Your task to perform on an android device: turn on priority inbox in the gmail app Image 0: 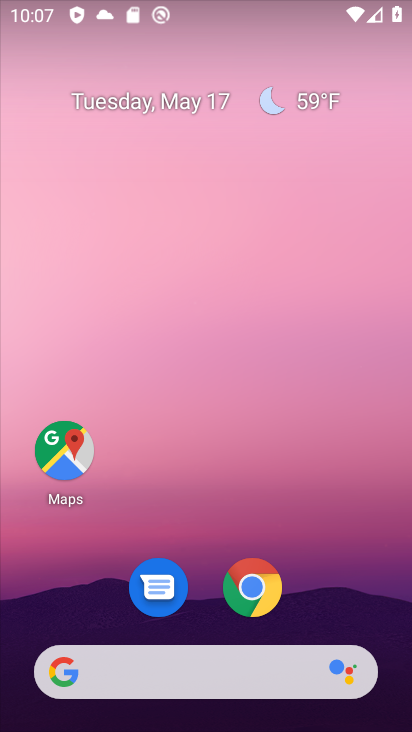
Step 0: drag from (311, 597) to (289, 90)
Your task to perform on an android device: turn on priority inbox in the gmail app Image 1: 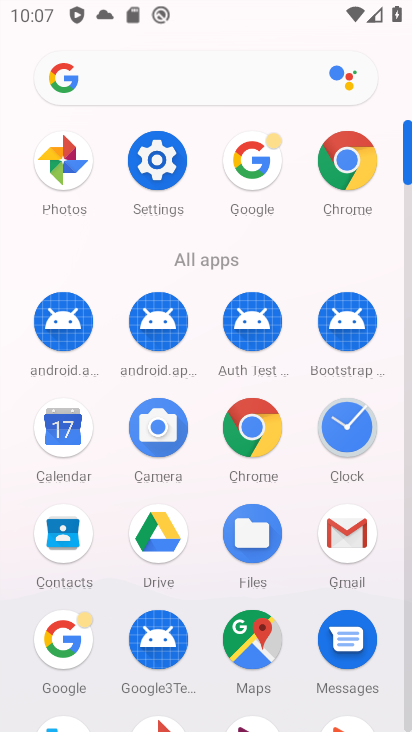
Step 1: click (353, 533)
Your task to perform on an android device: turn on priority inbox in the gmail app Image 2: 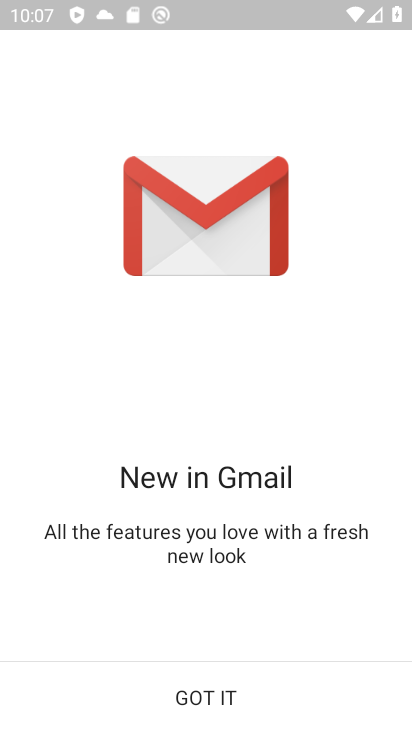
Step 2: click (353, 533)
Your task to perform on an android device: turn on priority inbox in the gmail app Image 3: 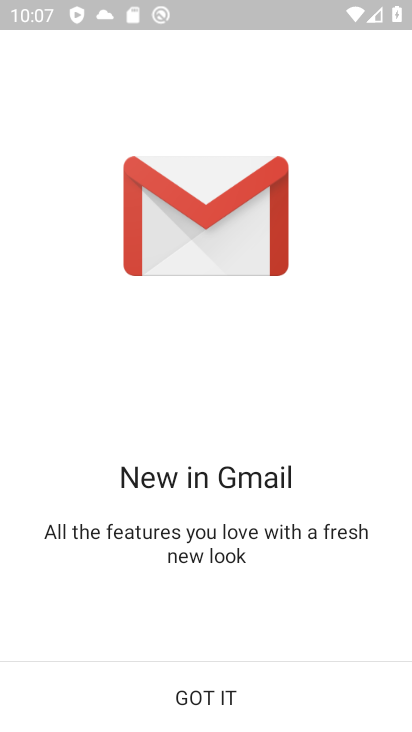
Step 3: click (240, 698)
Your task to perform on an android device: turn on priority inbox in the gmail app Image 4: 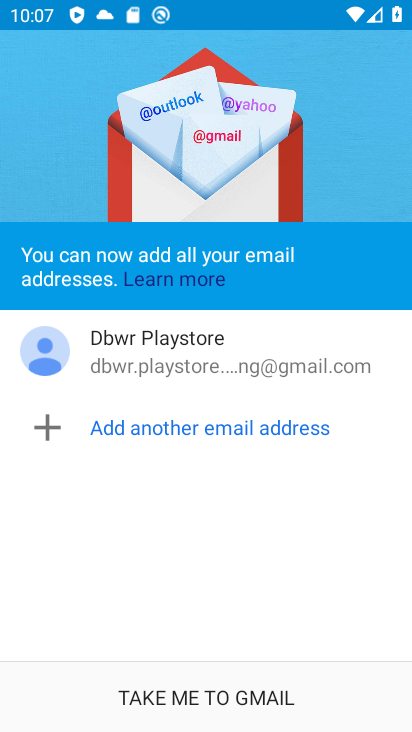
Step 4: click (240, 698)
Your task to perform on an android device: turn on priority inbox in the gmail app Image 5: 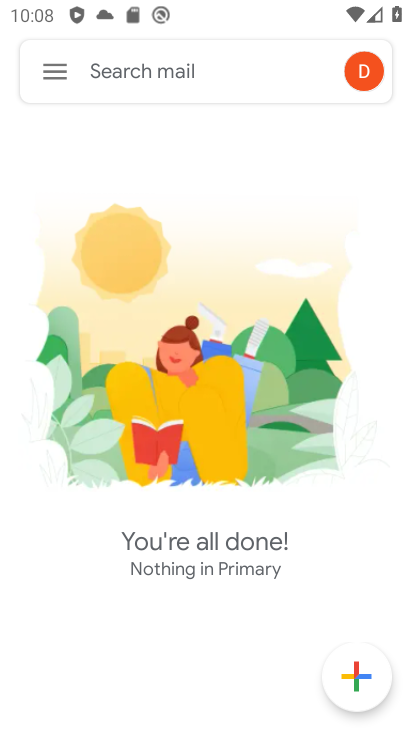
Step 5: click (43, 77)
Your task to perform on an android device: turn on priority inbox in the gmail app Image 6: 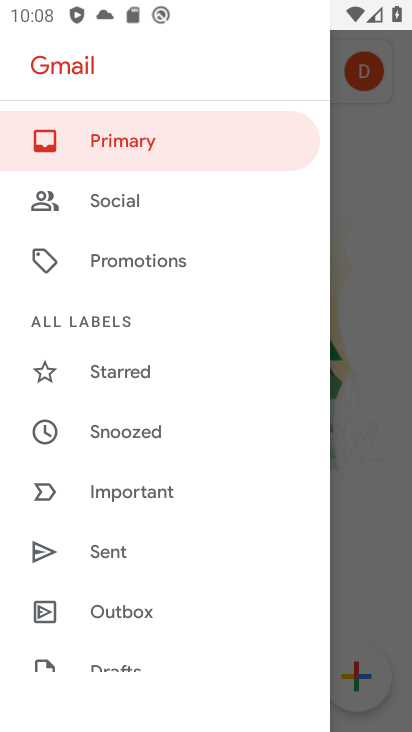
Step 6: drag from (183, 638) to (162, 437)
Your task to perform on an android device: turn on priority inbox in the gmail app Image 7: 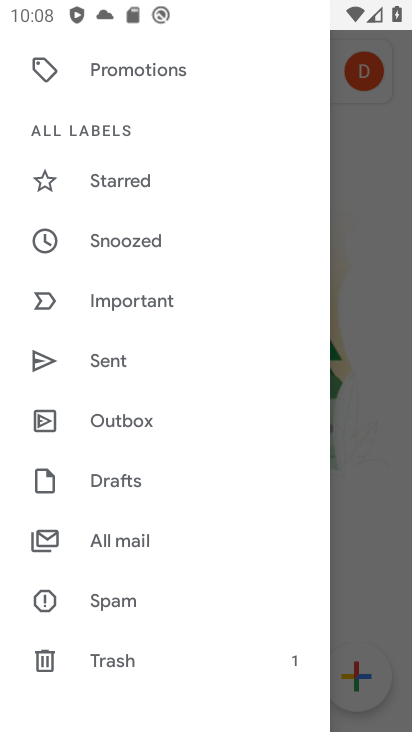
Step 7: drag from (194, 549) to (109, 323)
Your task to perform on an android device: turn on priority inbox in the gmail app Image 8: 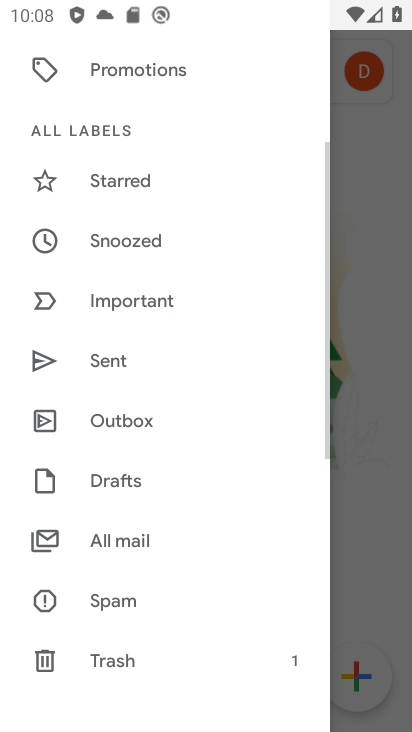
Step 8: drag from (121, 641) to (161, 297)
Your task to perform on an android device: turn on priority inbox in the gmail app Image 9: 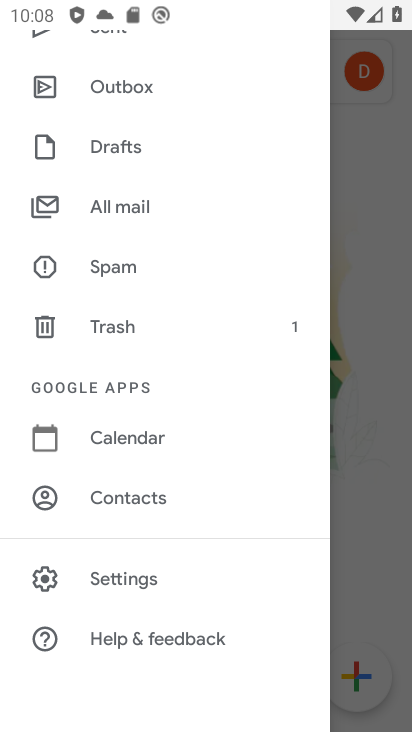
Step 9: click (123, 571)
Your task to perform on an android device: turn on priority inbox in the gmail app Image 10: 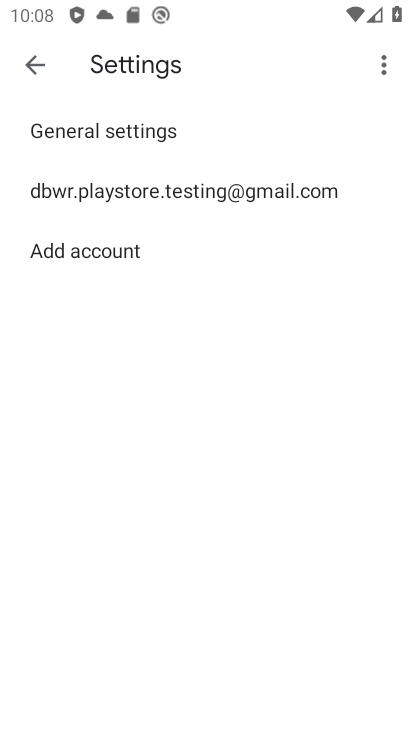
Step 10: click (212, 189)
Your task to perform on an android device: turn on priority inbox in the gmail app Image 11: 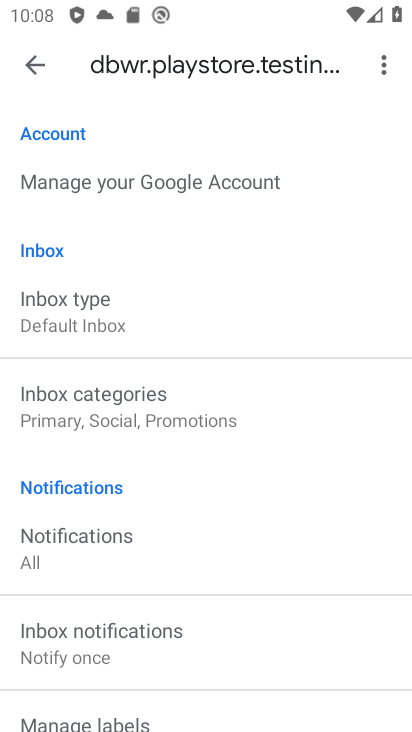
Step 11: click (64, 295)
Your task to perform on an android device: turn on priority inbox in the gmail app Image 12: 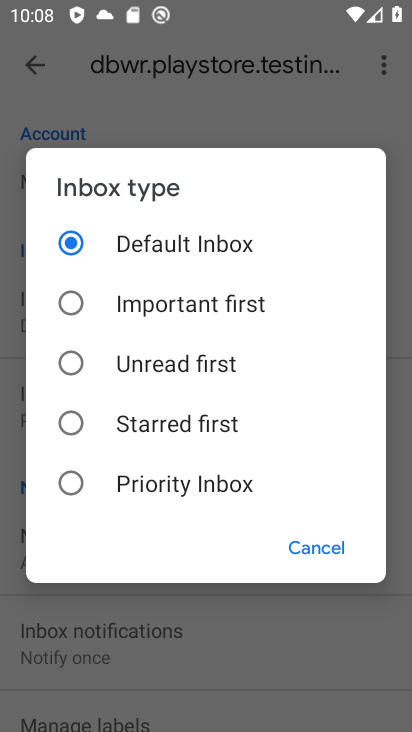
Step 12: click (66, 483)
Your task to perform on an android device: turn on priority inbox in the gmail app Image 13: 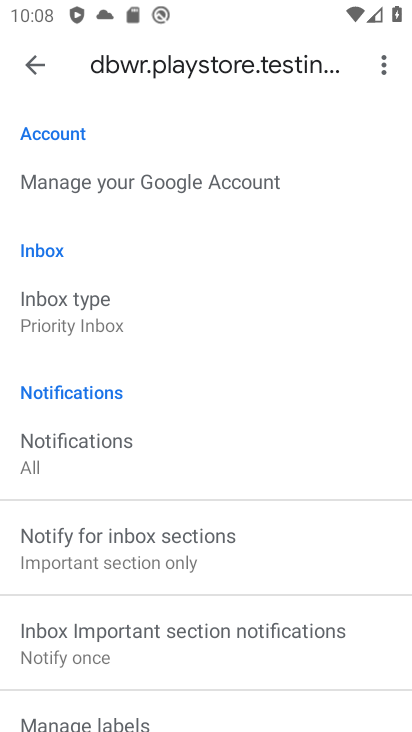
Step 13: task complete